Your task to perform on an android device: change the upload size in google photos Image 0: 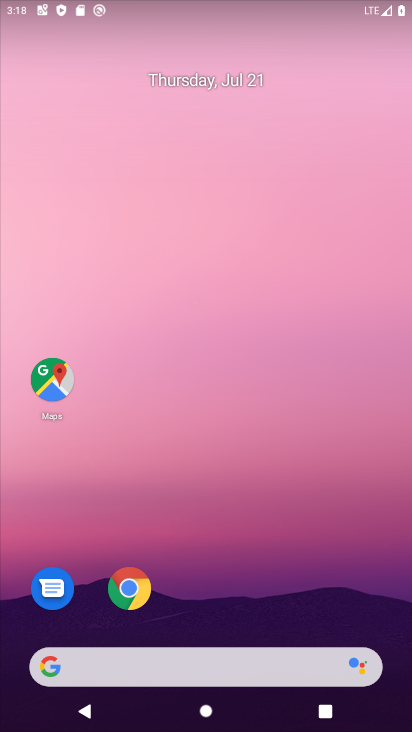
Step 0: drag from (279, 579) to (324, 121)
Your task to perform on an android device: change the upload size in google photos Image 1: 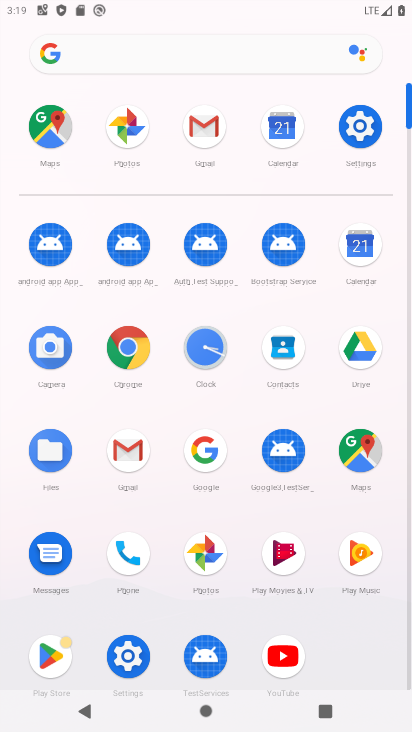
Step 1: click (207, 559)
Your task to perform on an android device: change the upload size in google photos Image 2: 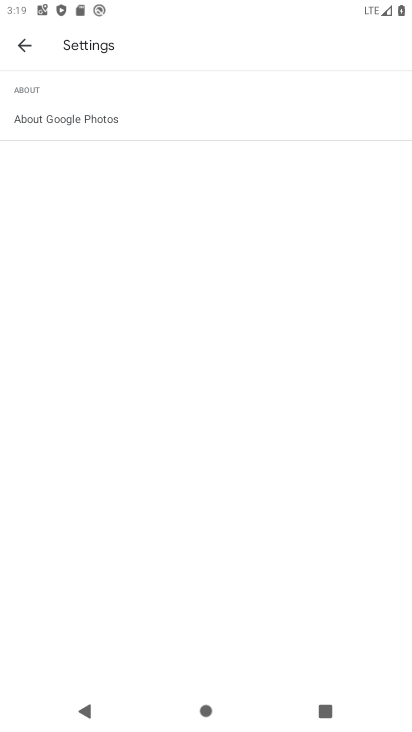
Step 2: click (29, 46)
Your task to perform on an android device: change the upload size in google photos Image 3: 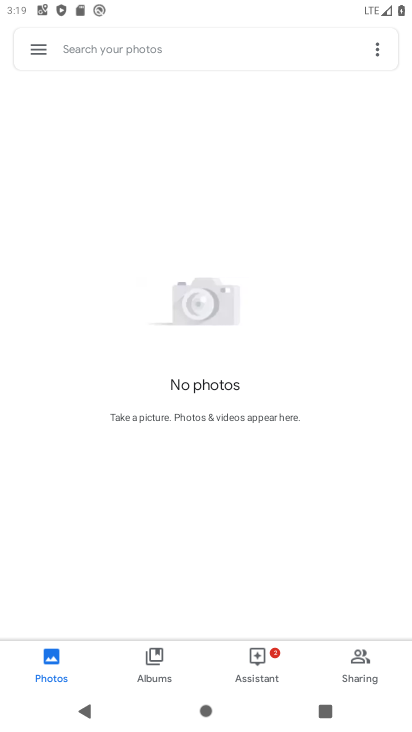
Step 3: click (38, 53)
Your task to perform on an android device: change the upload size in google photos Image 4: 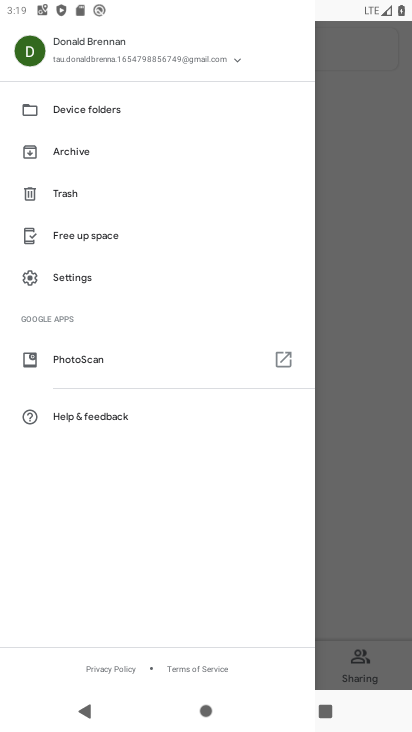
Step 4: click (76, 291)
Your task to perform on an android device: change the upload size in google photos Image 5: 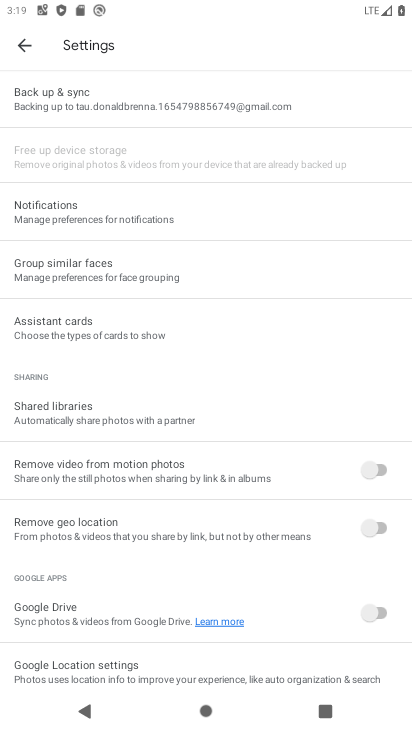
Step 5: click (148, 90)
Your task to perform on an android device: change the upload size in google photos Image 6: 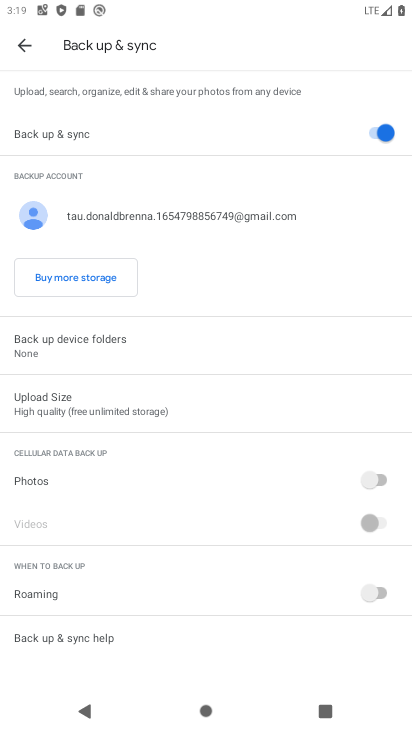
Step 6: click (65, 417)
Your task to perform on an android device: change the upload size in google photos Image 7: 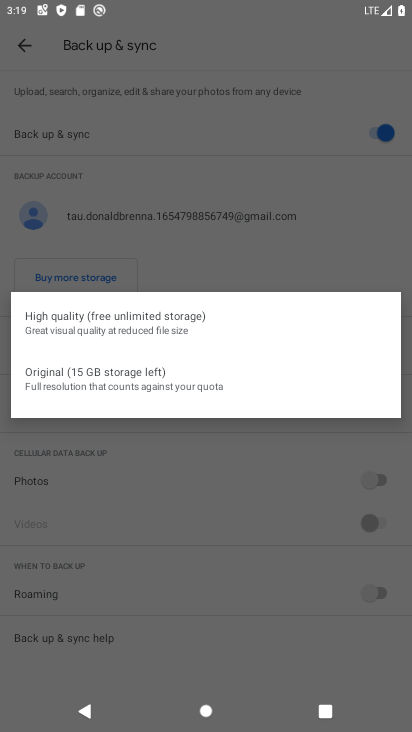
Step 7: click (94, 366)
Your task to perform on an android device: change the upload size in google photos Image 8: 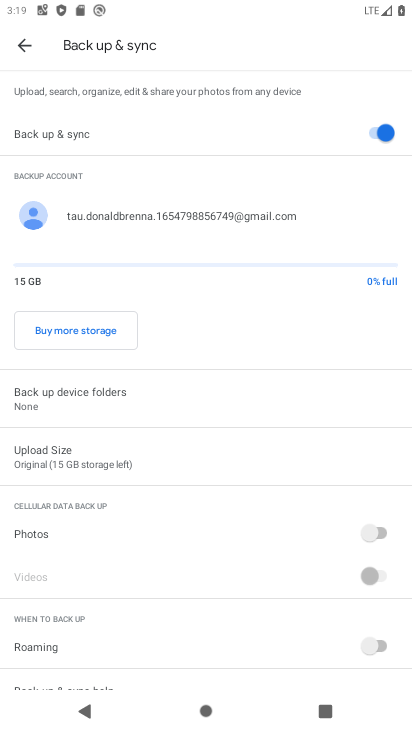
Step 8: task complete